Your task to perform on an android device: When is my next meeting? Image 0: 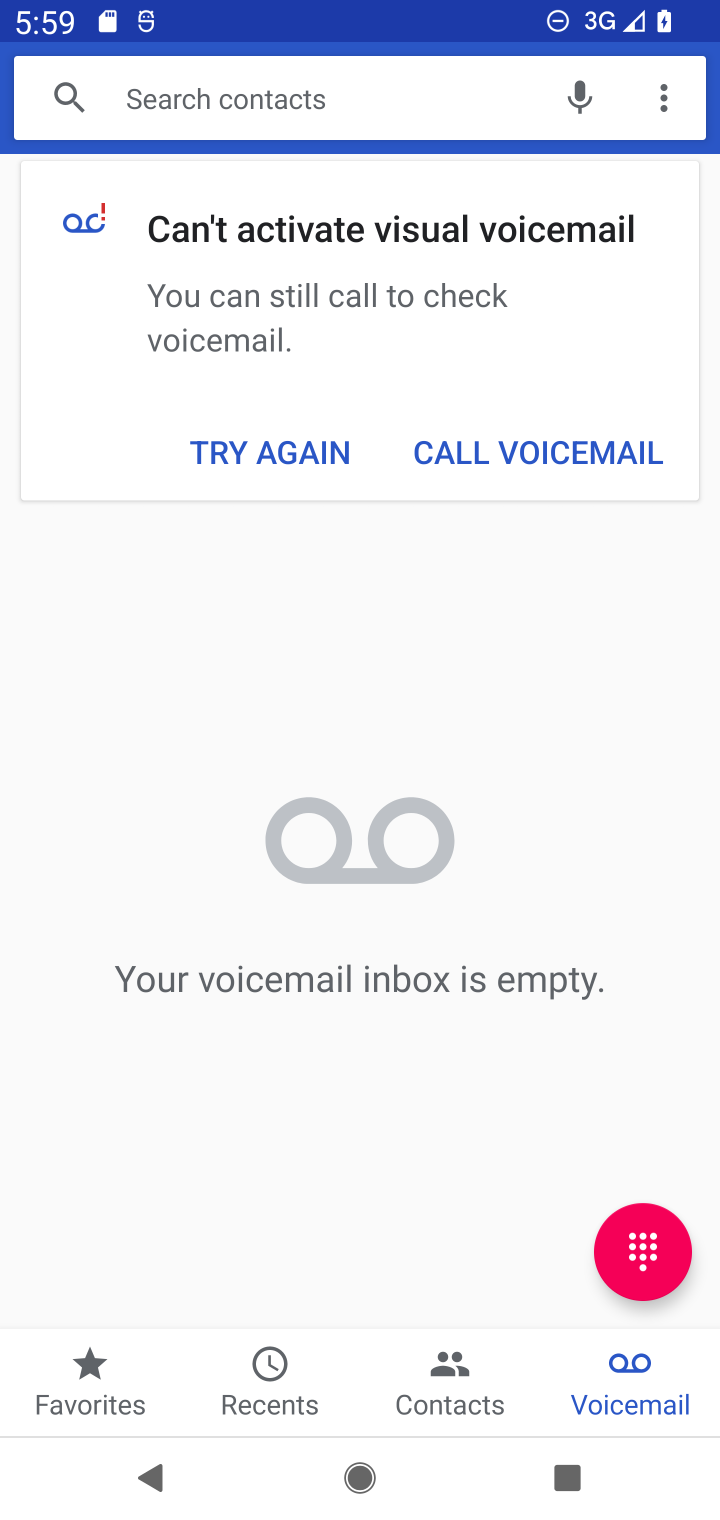
Step 0: press home button
Your task to perform on an android device: When is my next meeting? Image 1: 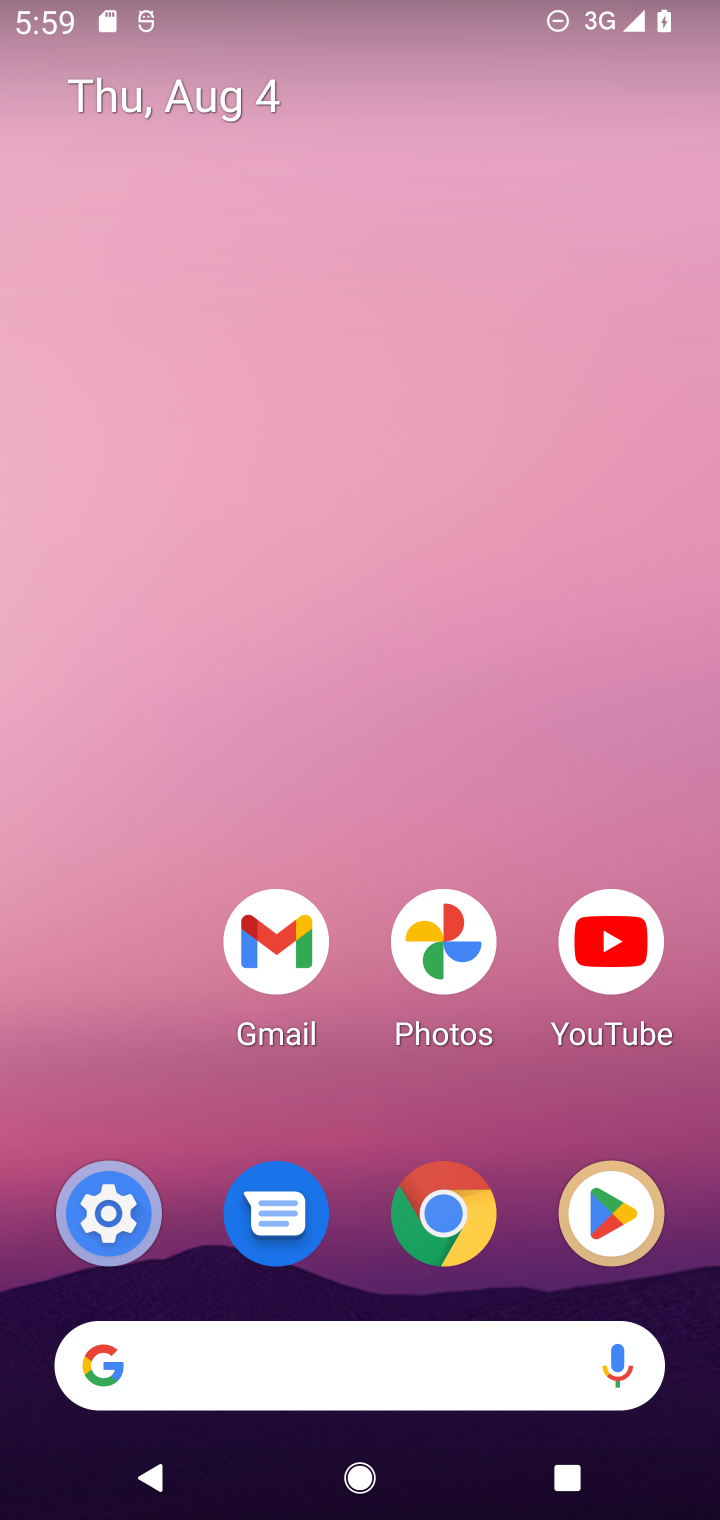
Step 1: drag from (191, 1132) to (175, 244)
Your task to perform on an android device: When is my next meeting? Image 2: 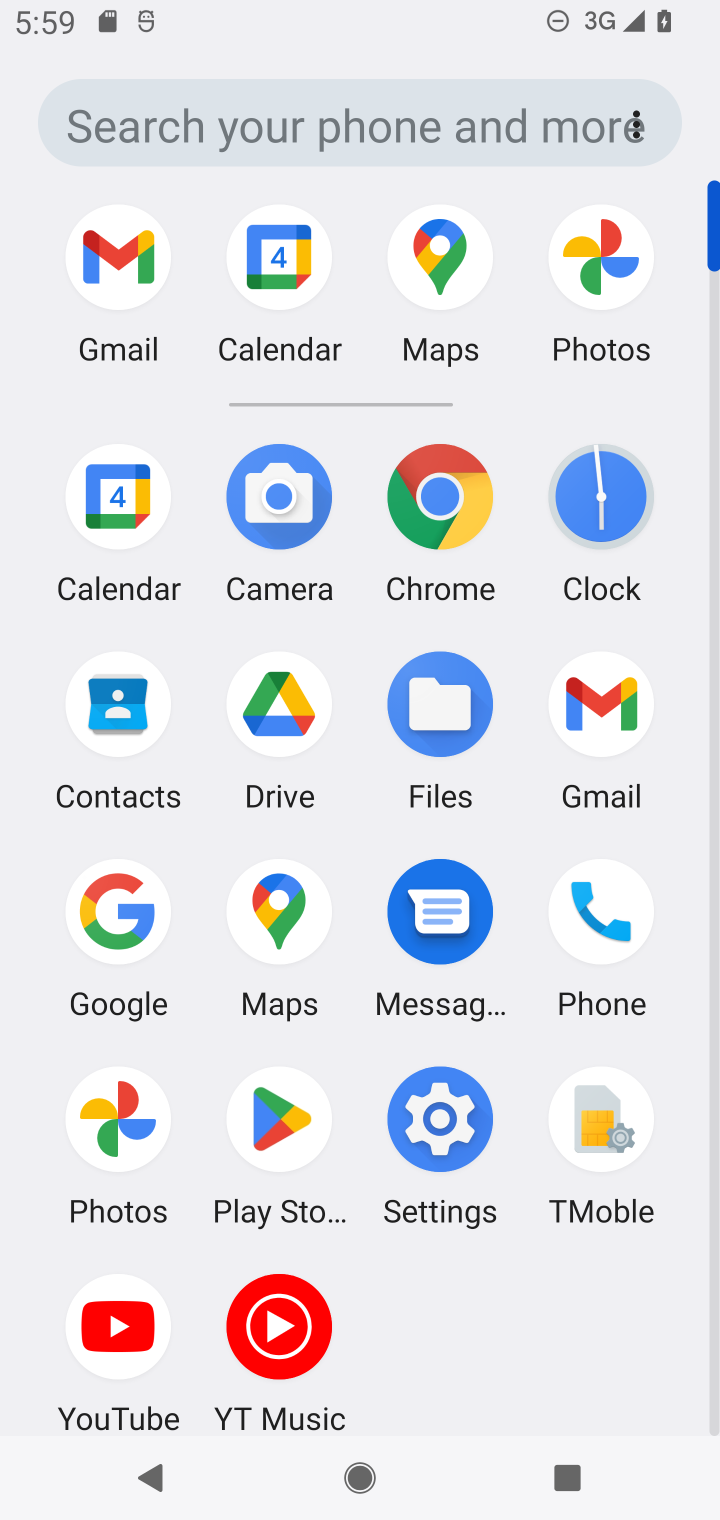
Step 2: click (127, 524)
Your task to perform on an android device: When is my next meeting? Image 3: 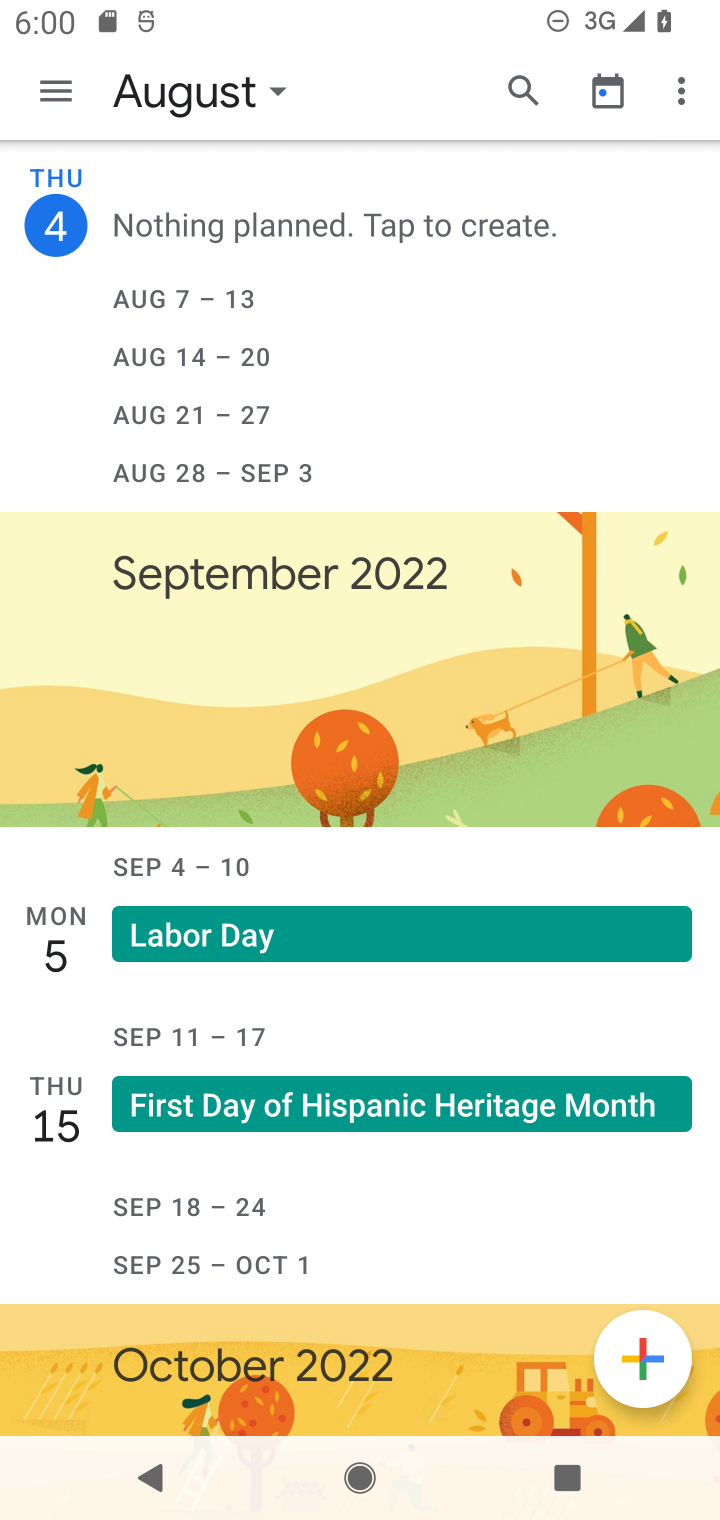
Step 3: task complete